Your task to perform on an android device: Open the web browser Image 0: 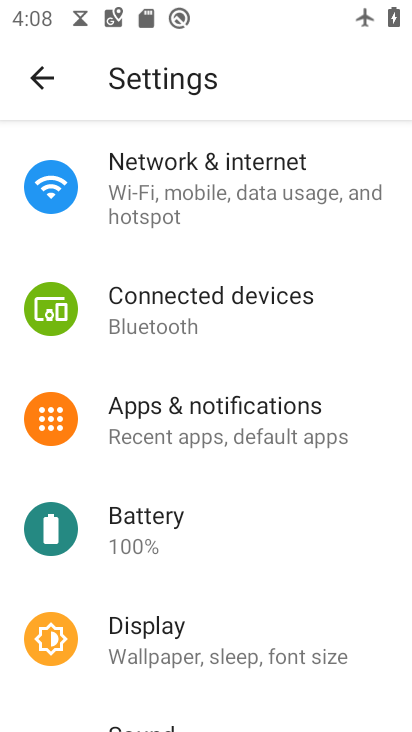
Step 0: click (383, 1)
Your task to perform on an android device: Open the web browser Image 1: 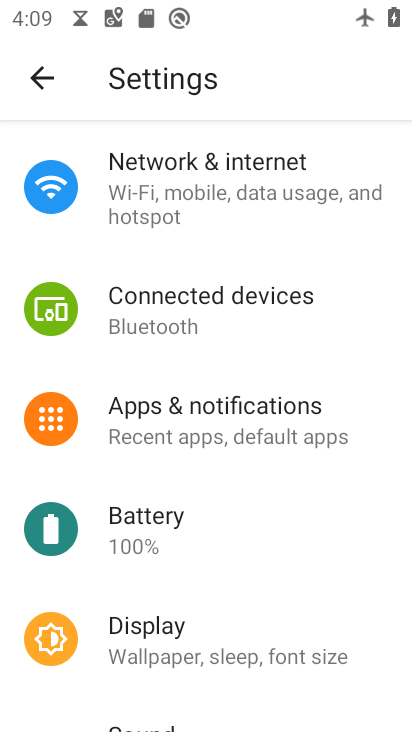
Step 1: press home button
Your task to perform on an android device: Open the web browser Image 2: 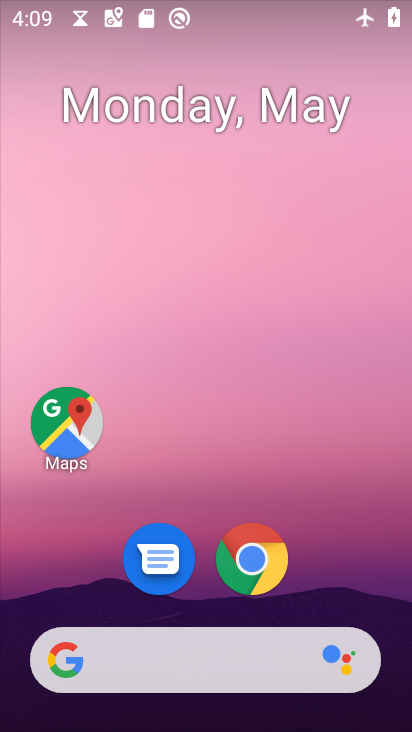
Step 2: click (253, 561)
Your task to perform on an android device: Open the web browser Image 3: 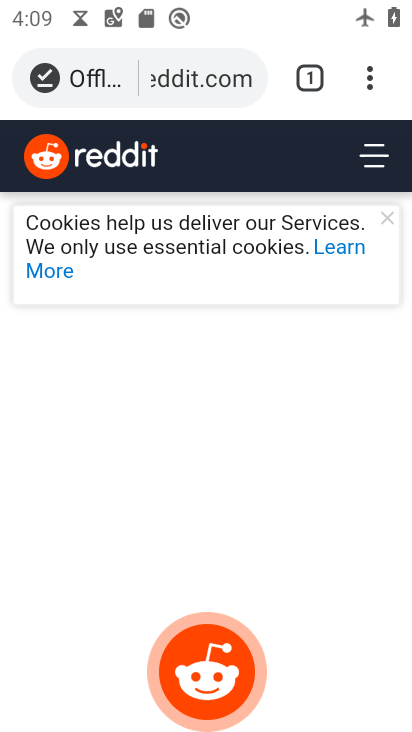
Step 3: task complete